Your task to perform on an android device: remove spam from my inbox in the gmail app Image 0: 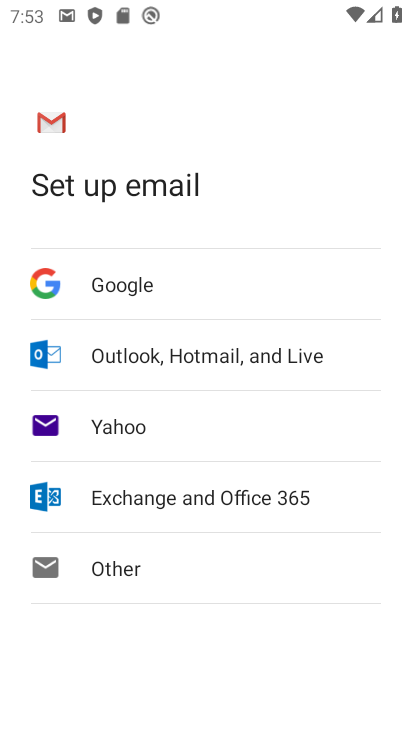
Step 0: press home button
Your task to perform on an android device: remove spam from my inbox in the gmail app Image 1: 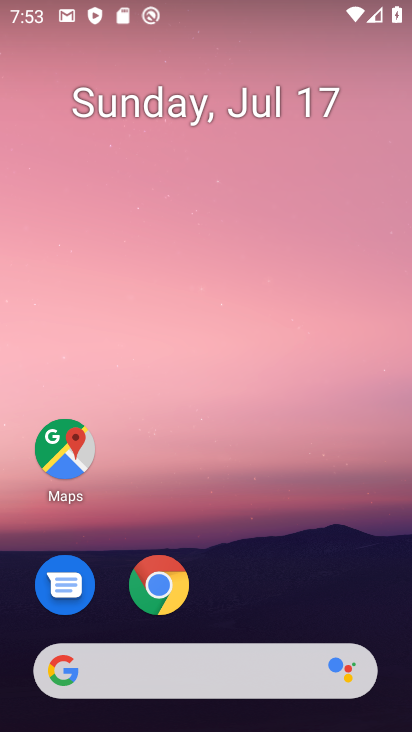
Step 1: drag from (228, 620) to (301, 198)
Your task to perform on an android device: remove spam from my inbox in the gmail app Image 2: 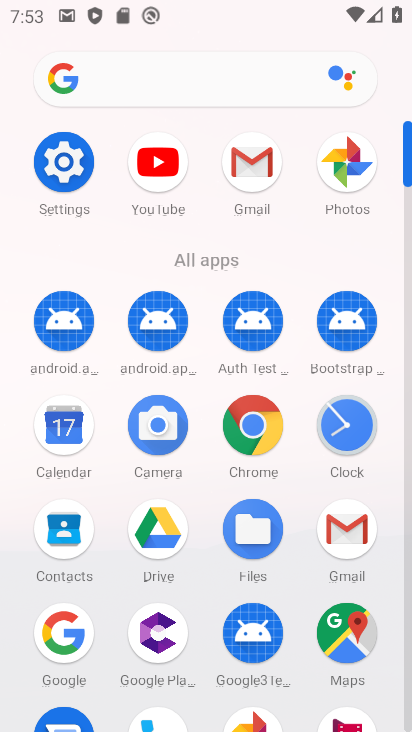
Step 2: click (235, 170)
Your task to perform on an android device: remove spam from my inbox in the gmail app Image 3: 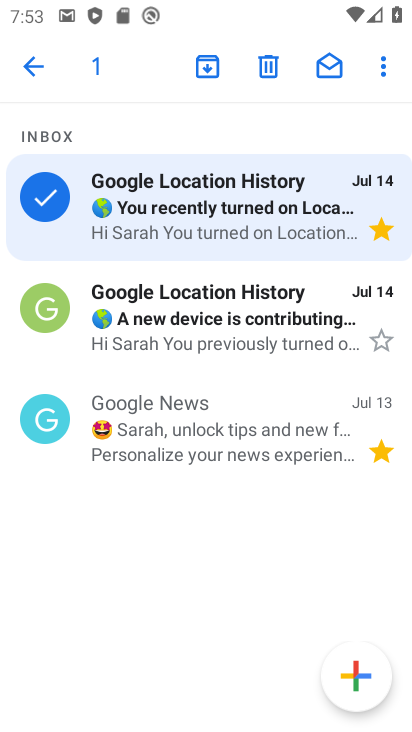
Step 3: click (38, 58)
Your task to perform on an android device: remove spam from my inbox in the gmail app Image 4: 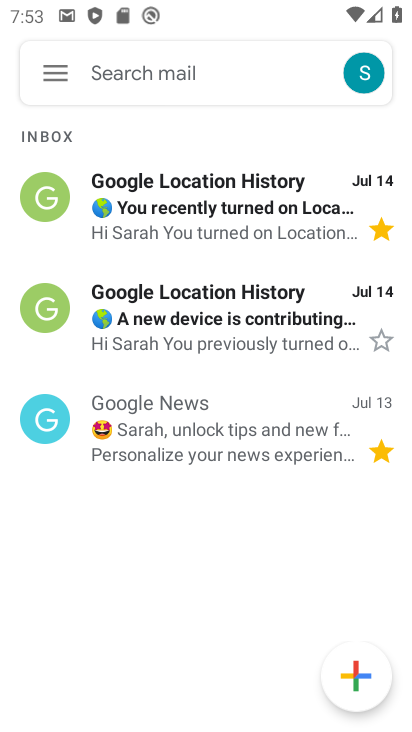
Step 4: click (61, 54)
Your task to perform on an android device: remove spam from my inbox in the gmail app Image 5: 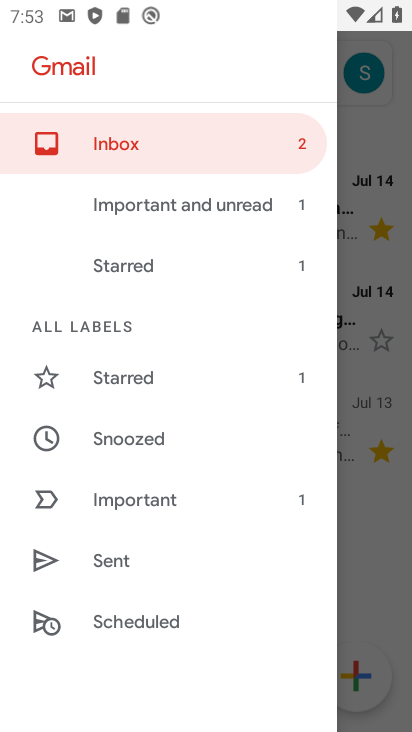
Step 5: drag from (177, 599) to (262, 132)
Your task to perform on an android device: remove spam from my inbox in the gmail app Image 6: 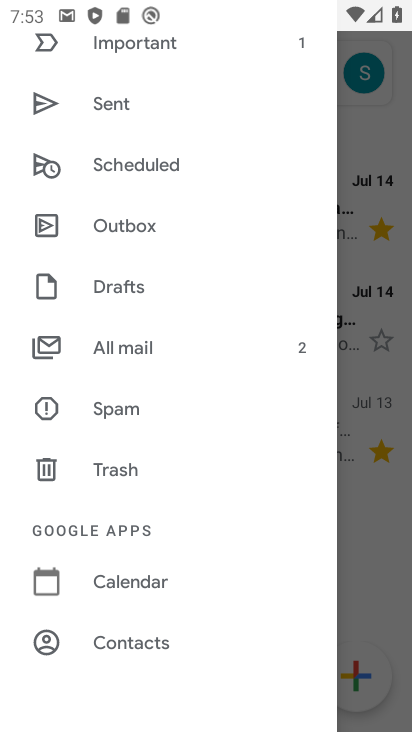
Step 6: click (122, 408)
Your task to perform on an android device: remove spam from my inbox in the gmail app Image 7: 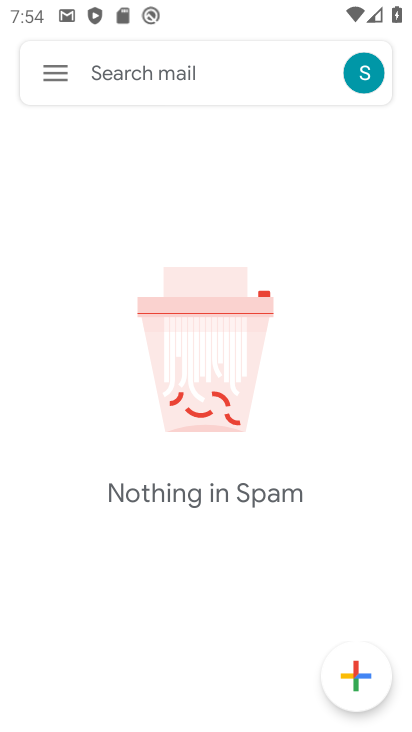
Step 7: task complete